Your task to perform on an android device: Open the calendar and show me this week's events Image 0: 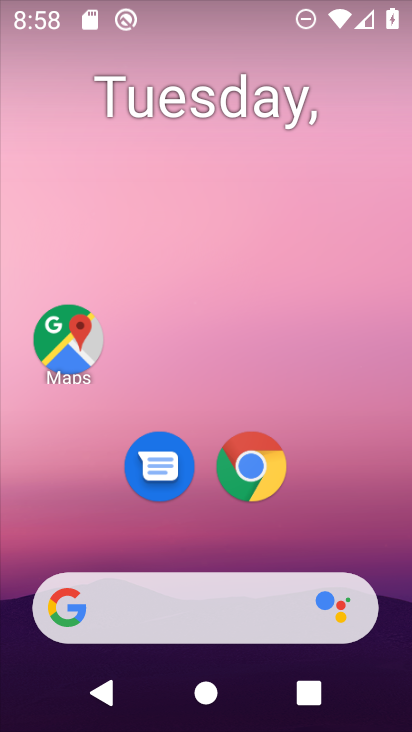
Step 0: drag from (223, 548) to (270, 1)
Your task to perform on an android device: Open the calendar and show me this week's events Image 1: 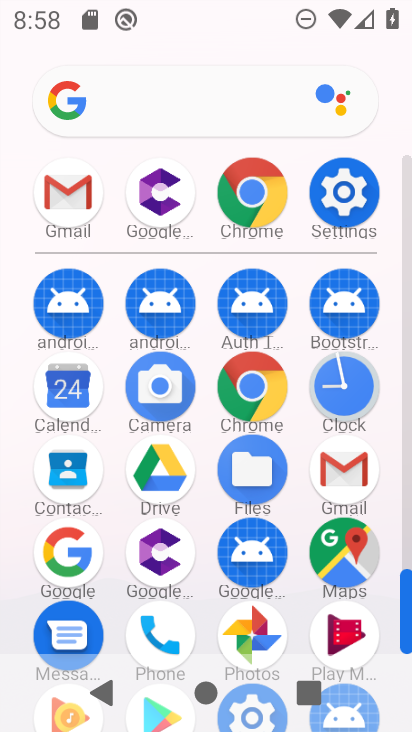
Step 1: click (68, 392)
Your task to perform on an android device: Open the calendar and show me this week's events Image 2: 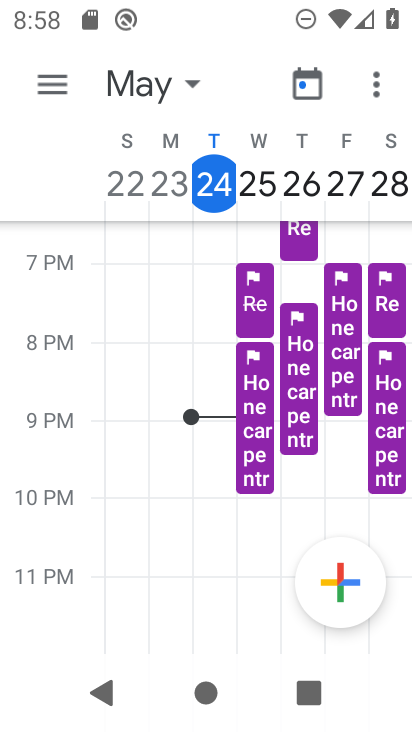
Step 2: task complete